Your task to perform on an android device: Go to battery settings Image 0: 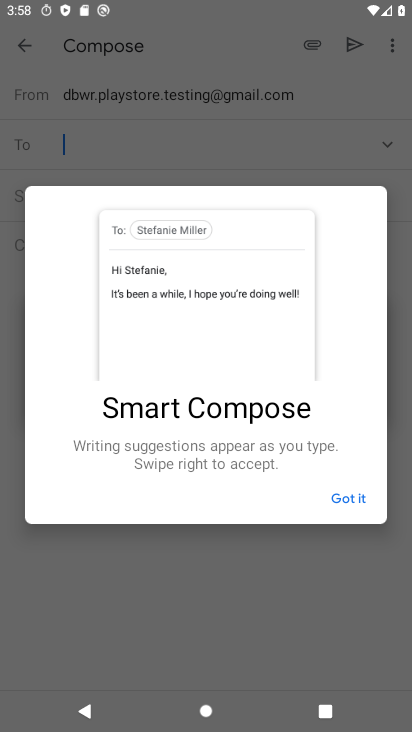
Step 0: press home button
Your task to perform on an android device: Go to battery settings Image 1: 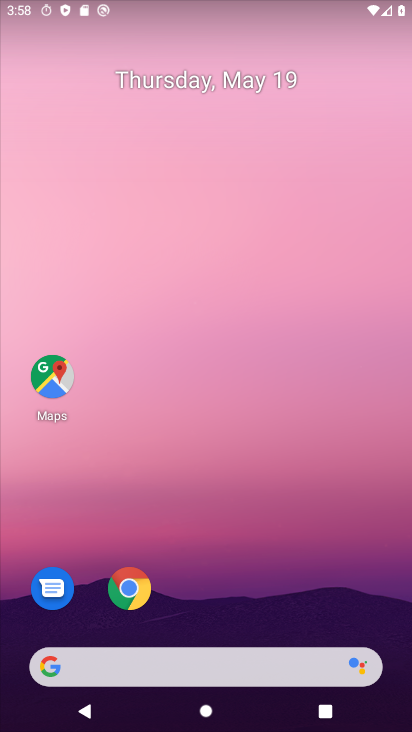
Step 1: drag from (188, 610) to (236, 314)
Your task to perform on an android device: Go to battery settings Image 2: 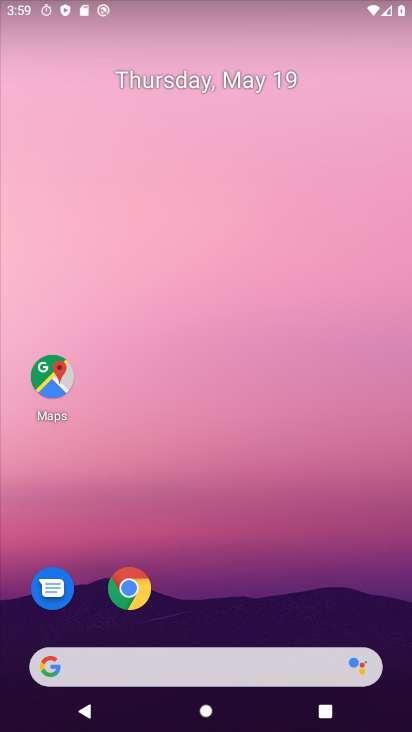
Step 2: drag from (193, 592) to (239, 173)
Your task to perform on an android device: Go to battery settings Image 3: 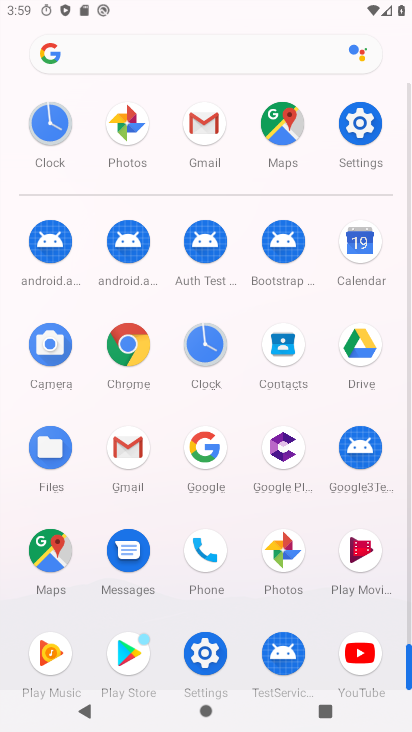
Step 3: click (363, 147)
Your task to perform on an android device: Go to battery settings Image 4: 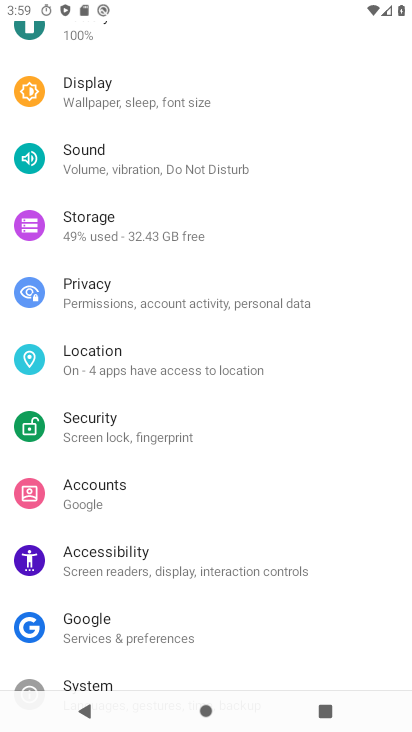
Step 4: drag from (157, 220) to (143, 535)
Your task to perform on an android device: Go to battery settings Image 5: 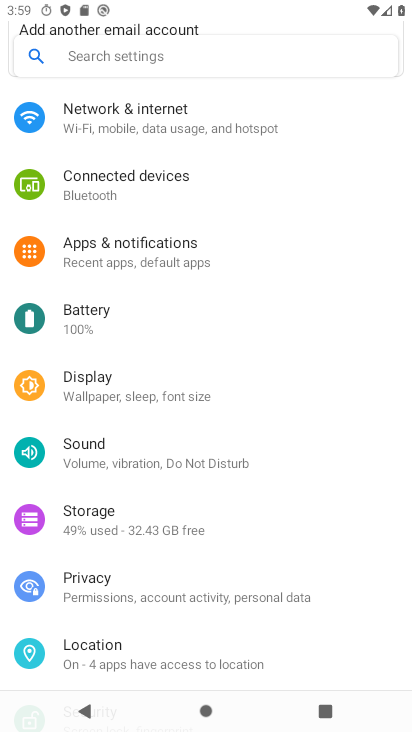
Step 5: click (77, 308)
Your task to perform on an android device: Go to battery settings Image 6: 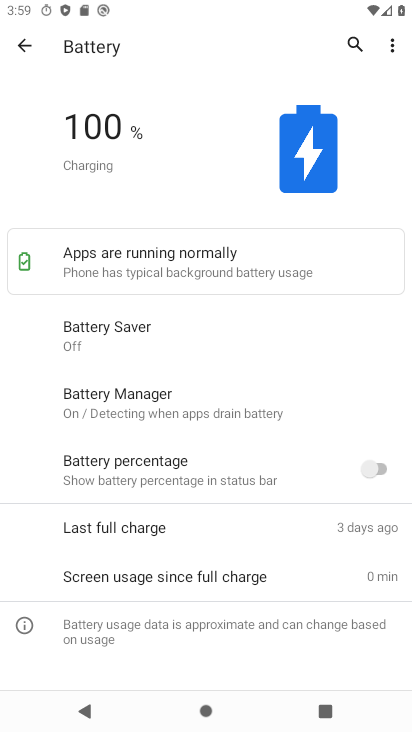
Step 6: task complete